Your task to perform on an android device: Open calendar and show me the third week of next month Image 0: 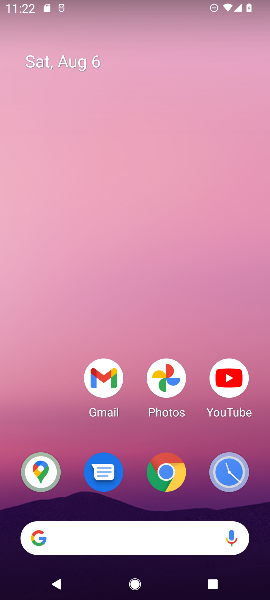
Step 0: drag from (215, 511) to (180, 160)
Your task to perform on an android device: Open calendar and show me the third week of next month Image 1: 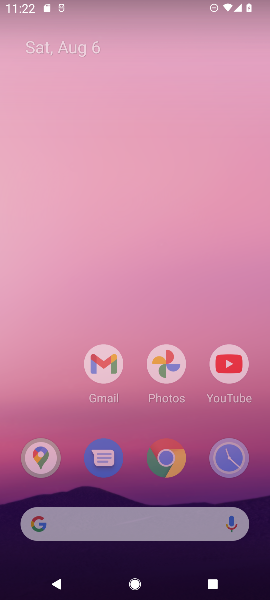
Step 1: drag from (234, 479) to (206, 149)
Your task to perform on an android device: Open calendar and show me the third week of next month Image 2: 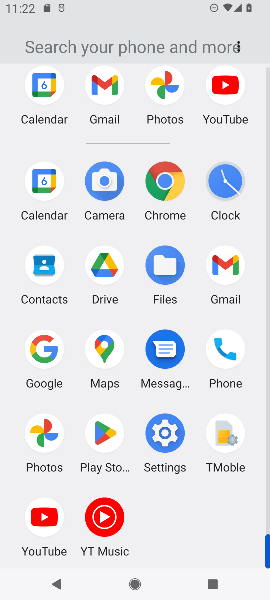
Step 2: click (40, 186)
Your task to perform on an android device: Open calendar and show me the third week of next month Image 3: 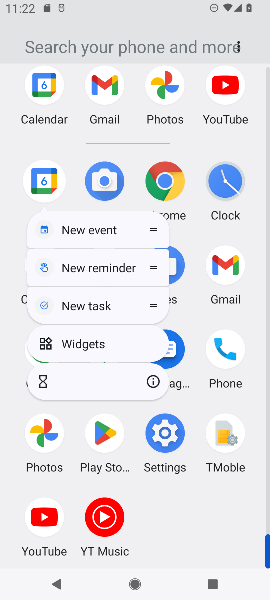
Step 3: click (40, 186)
Your task to perform on an android device: Open calendar and show me the third week of next month Image 4: 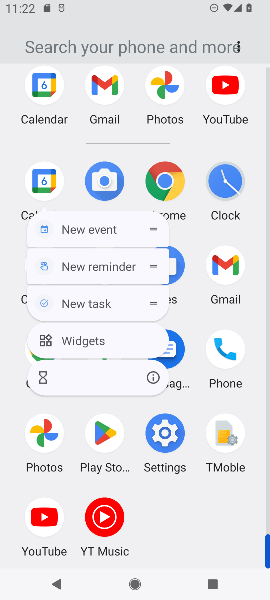
Step 4: click (40, 186)
Your task to perform on an android device: Open calendar and show me the third week of next month Image 5: 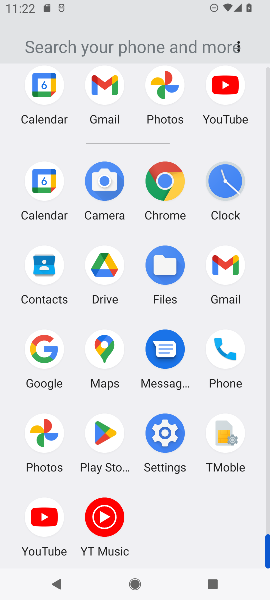
Step 5: click (41, 188)
Your task to perform on an android device: Open calendar and show me the third week of next month Image 6: 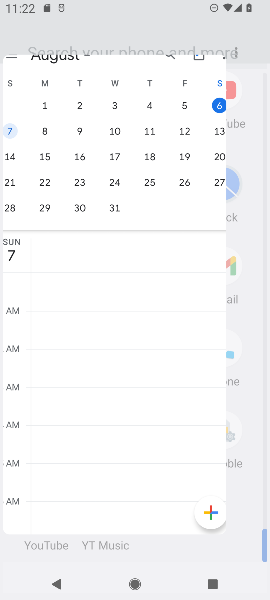
Step 6: click (44, 184)
Your task to perform on an android device: Open calendar and show me the third week of next month Image 7: 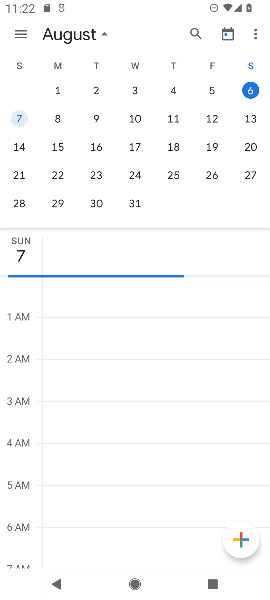
Step 7: click (46, 180)
Your task to perform on an android device: Open calendar and show me the third week of next month Image 8: 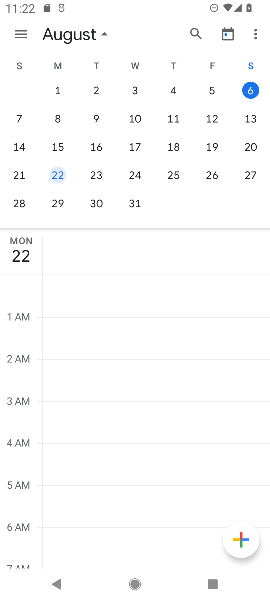
Step 8: drag from (237, 92) to (68, 146)
Your task to perform on an android device: Open calendar and show me the third week of next month Image 9: 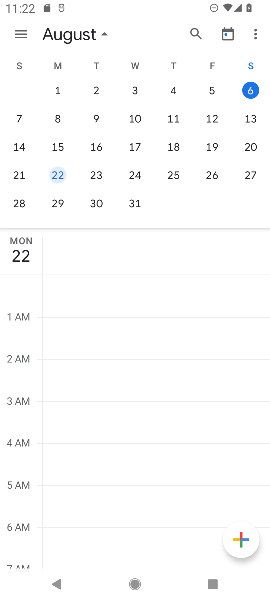
Step 9: drag from (202, 91) to (35, 96)
Your task to perform on an android device: Open calendar and show me the third week of next month Image 10: 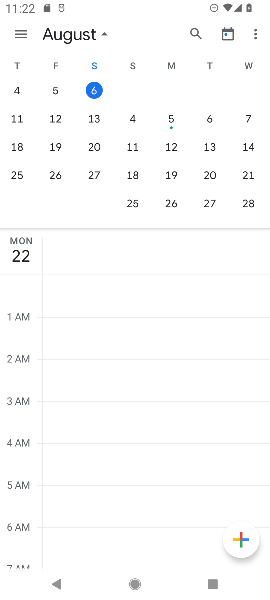
Step 10: drag from (226, 112) to (41, 142)
Your task to perform on an android device: Open calendar and show me the third week of next month Image 11: 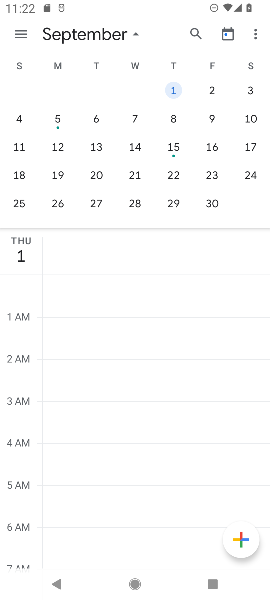
Step 11: click (173, 142)
Your task to perform on an android device: Open calendar and show me the third week of next month Image 12: 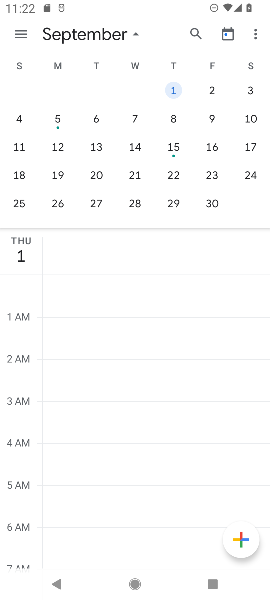
Step 12: click (172, 143)
Your task to perform on an android device: Open calendar and show me the third week of next month Image 13: 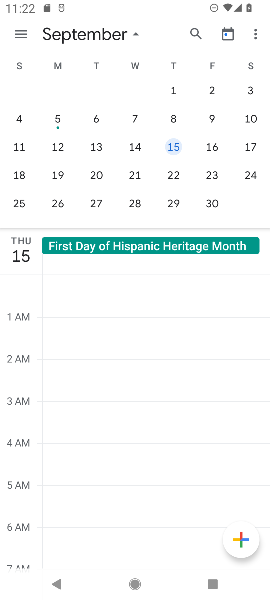
Step 13: task complete